Your task to perform on an android device: delete the emails in spam in the gmail app Image 0: 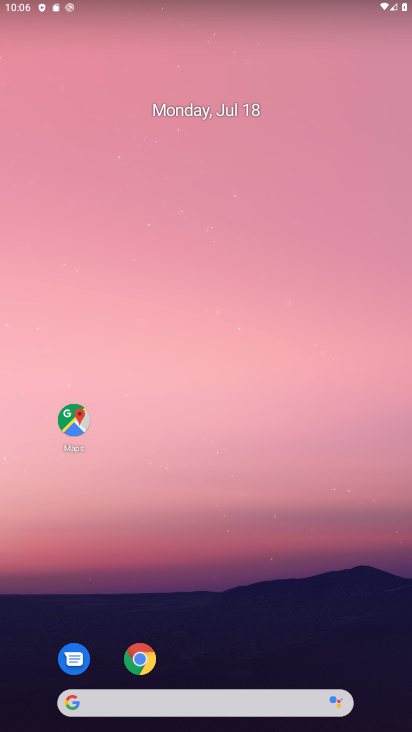
Step 0: drag from (237, 630) to (171, 219)
Your task to perform on an android device: delete the emails in spam in the gmail app Image 1: 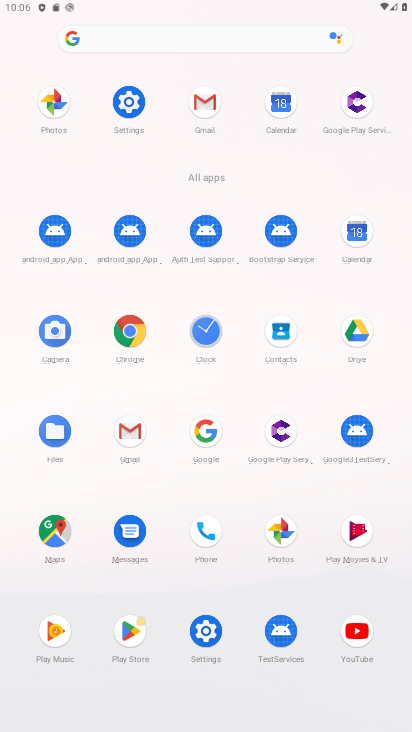
Step 1: click (129, 440)
Your task to perform on an android device: delete the emails in spam in the gmail app Image 2: 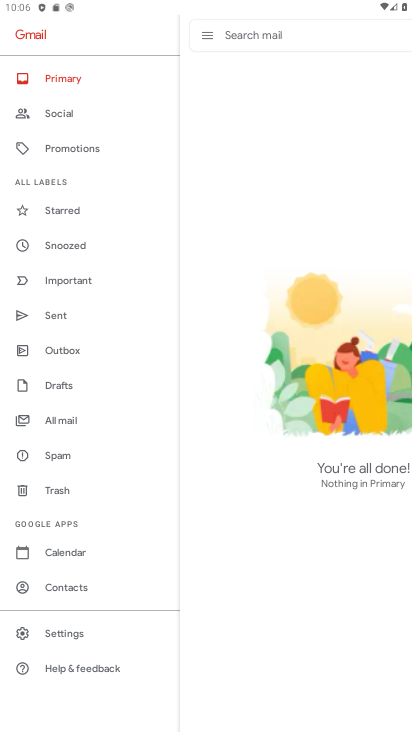
Step 2: click (54, 454)
Your task to perform on an android device: delete the emails in spam in the gmail app Image 3: 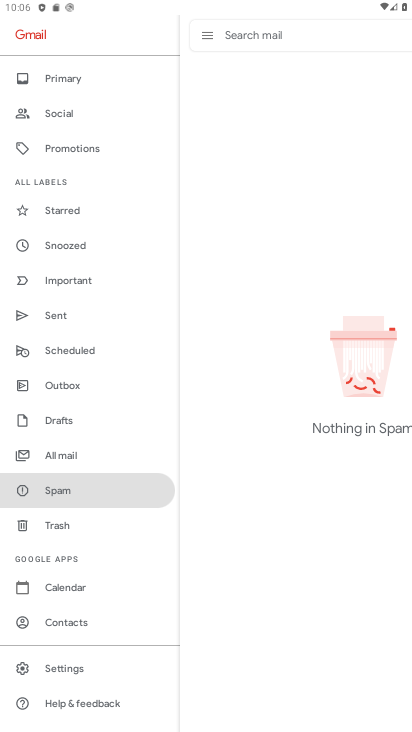
Step 3: task complete